Your task to perform on an android device: open the mobile data screen to see how much data has been used Image 0: 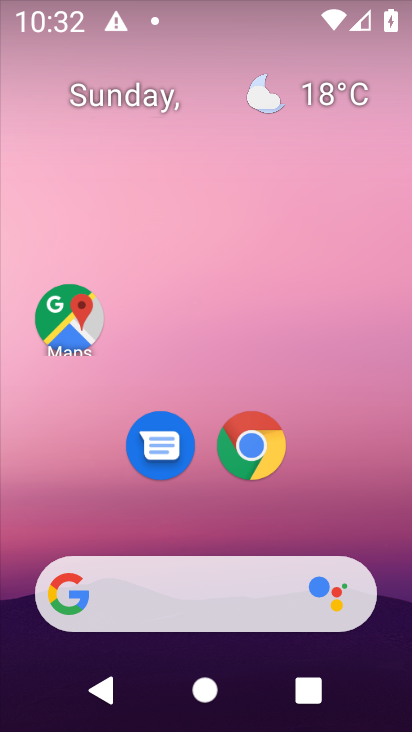
Step 0: drag from (184, 614) to (171, 3)
Your task to perform on an android device: open the mobile data screen to see how much data has been used Image 1: 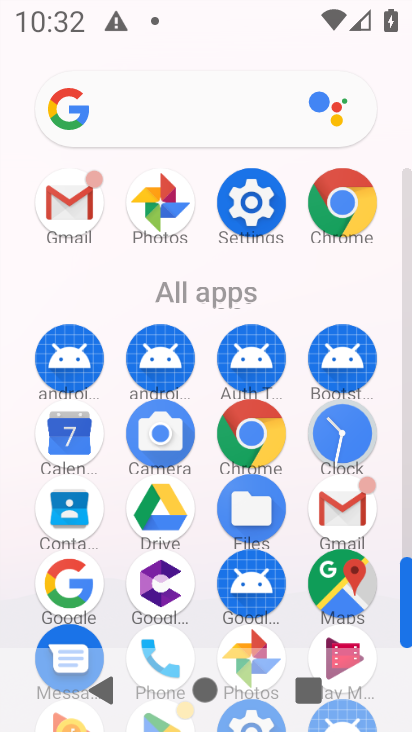
Step 1: click (251, 212)
Your task to perform on an android device: open the mobile data screen to see how much data has been used Image 2: 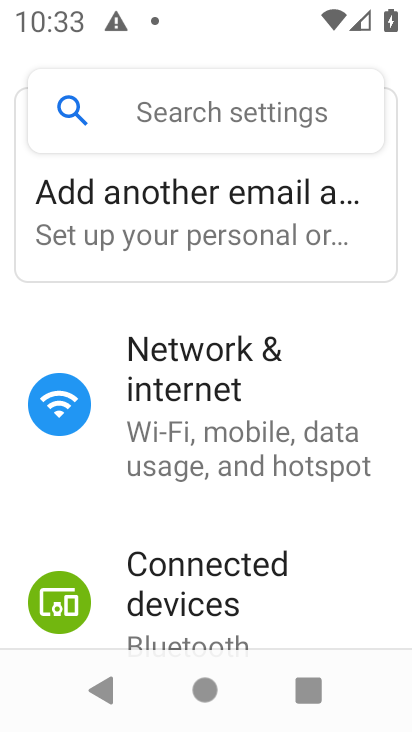
Step 2: click (211, 436)
Your task to perform on an android device: open the mobile data screen to see how much data has been used Image 3: 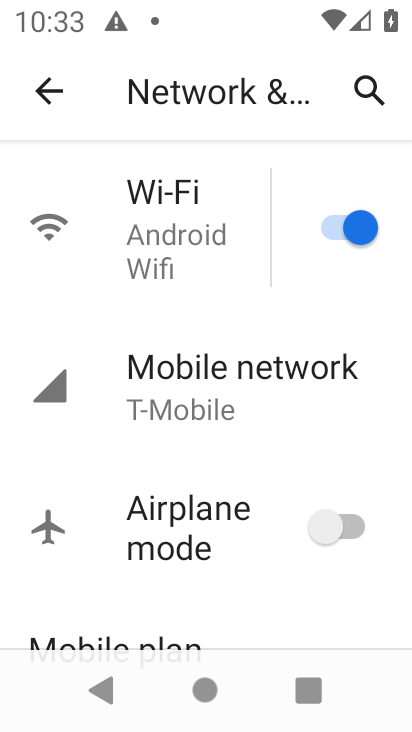
Step 3: click (201, 348)
Your task to perform on an android device: open the mobile data screen to see how much data has been used Image 4: 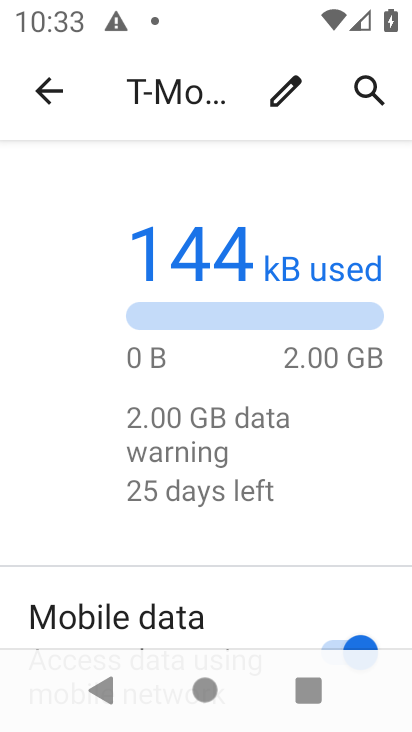
Step 4: task complete